Your task to perform on an android device: Is it going to rain tomorrow? Image 0: 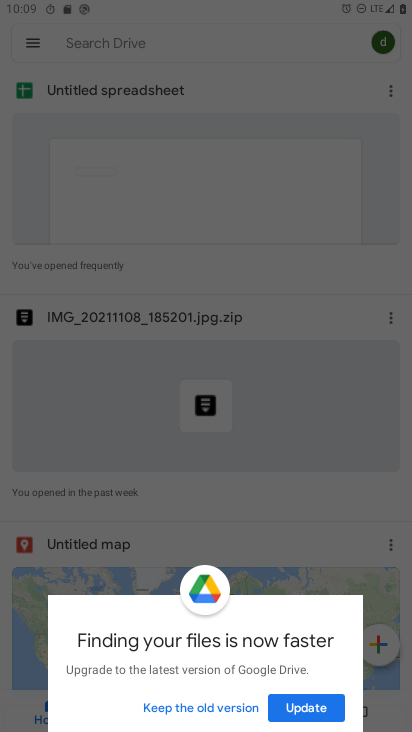
Step 0: drag from (387, 653) to (403, 613)
Your task to perform on an android device: Is it going to rain tomorrow? Image 1: 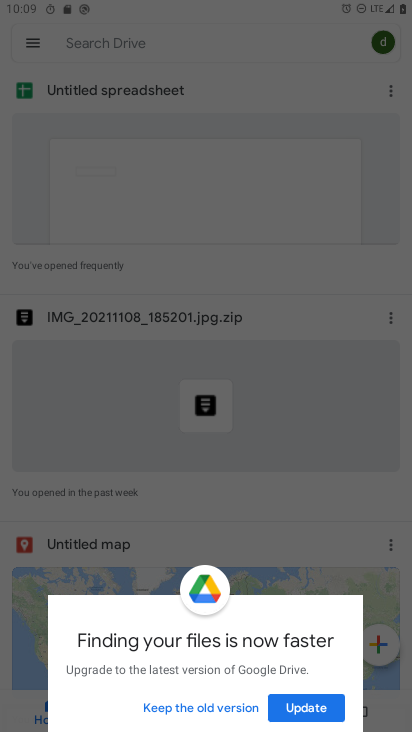
Step 1: press home button
Your task to perform on an android device: Is it going to rain tomorrow? Image 2: 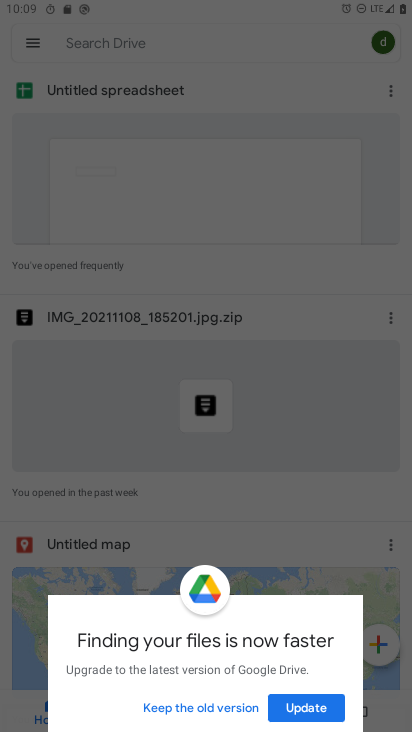
Step 2: click (403, 613)
Your task to perform on an android device: Is it going to rain tomorrow? Image 3: 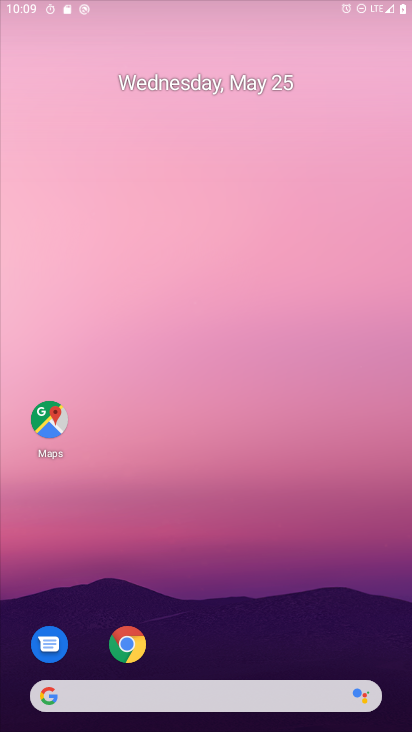
Step 3: drag from (369, 652) to (297, 68)
Your task to perform on an android device: Is it going to rain tomorrow? Image 4: 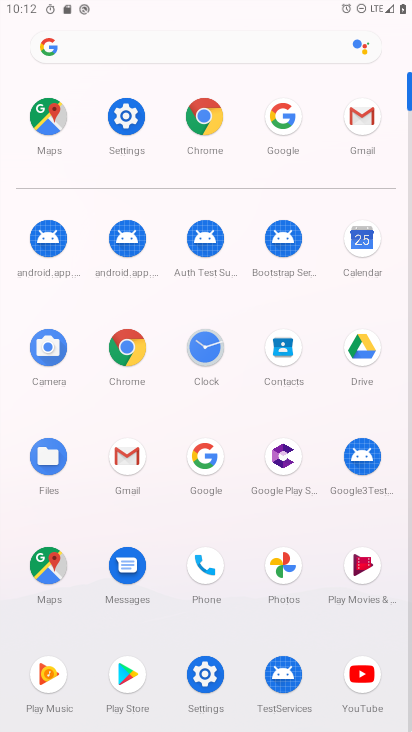
Step 4: click (205, 448)
Your task to perform on an android device: Is it going to rain tomorrow? Image 5: 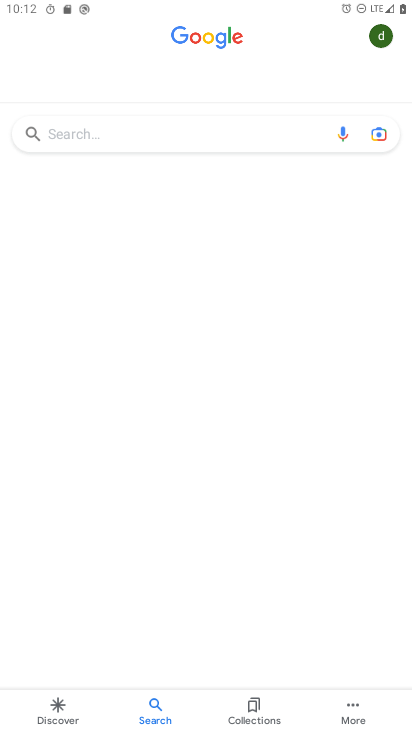
Step 5: click (113, 153)
Your task to perform on an android device: Is it going to rain tomorrow? Image 6: 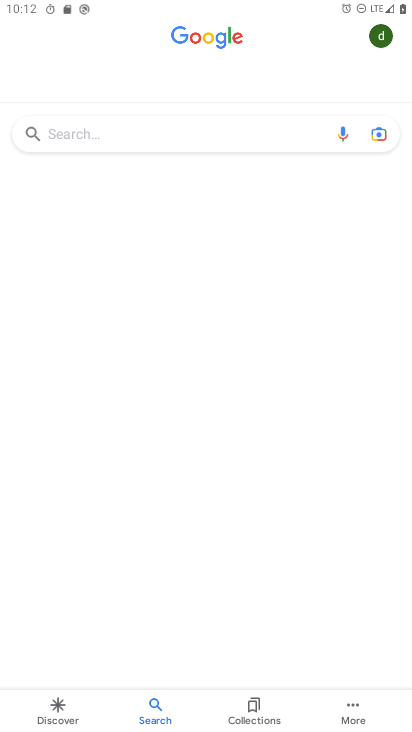
Step 6: click (121, 138)
Your task to perform on an android device: Is it going to rain tomorrow? Image 7: 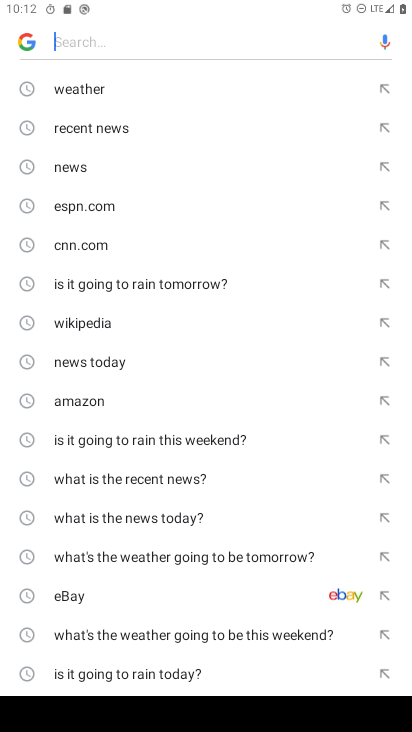
Step 7: click (163, 284)
Your task to perform on an android device: Is it going to rain tomorrow? Image 8: 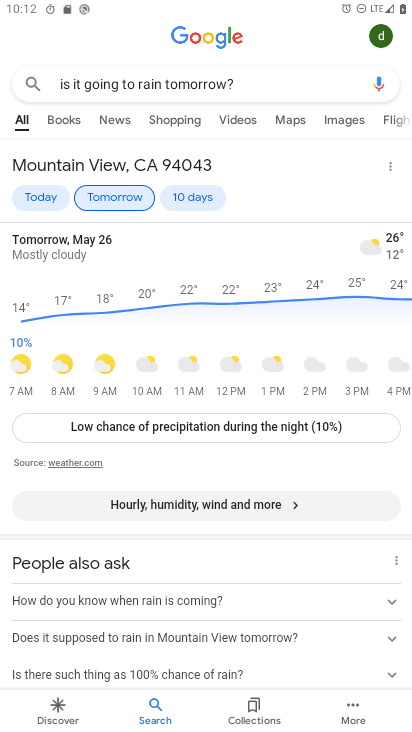
Step 8: task complete